Your task to perform on an android device: Is it going to rain today? Image 0: 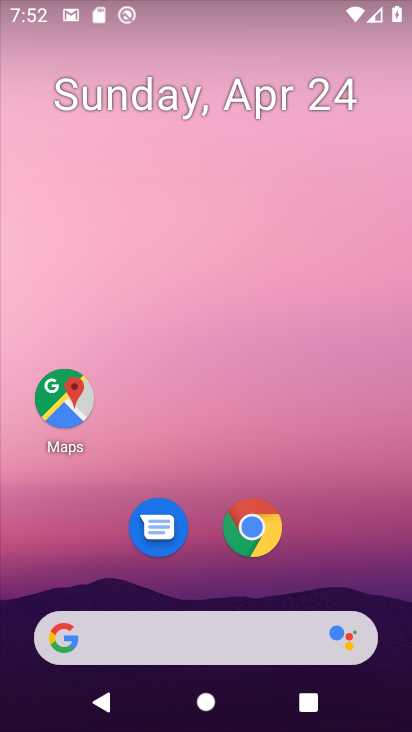
Step 0: click (251, 531)
Your task to perform on an android device: Is it going to rain today? Image 1: 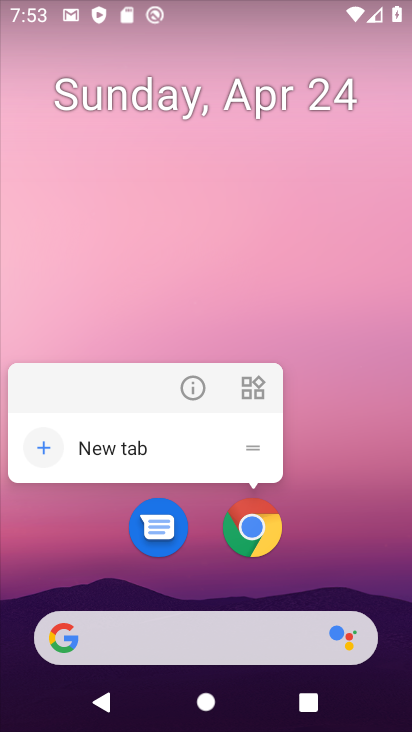
Step 1: click (199, 385)
Your task to perform on an android device: Is it going to rain today? Image 2: 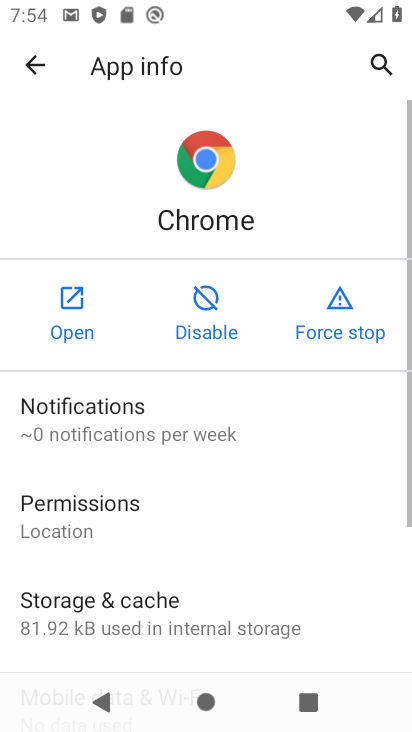
Step 2: click (84, 328)
Your task to perform on an android device: Is it going to rain today? Image 3: 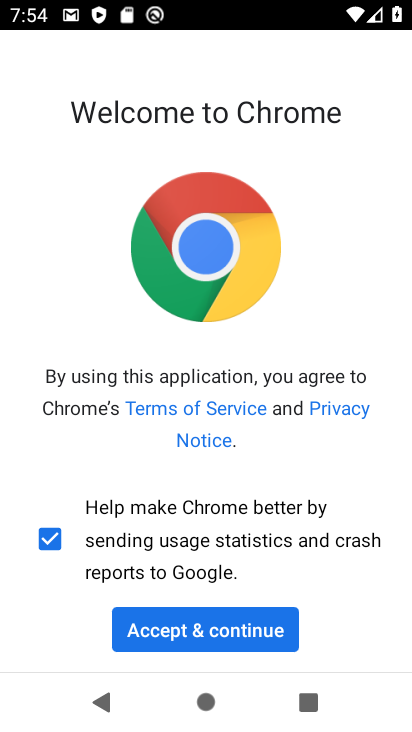
Step 3: click (208, 635)
Your task to perform on an android device: Is it going to rain today? Image 4: 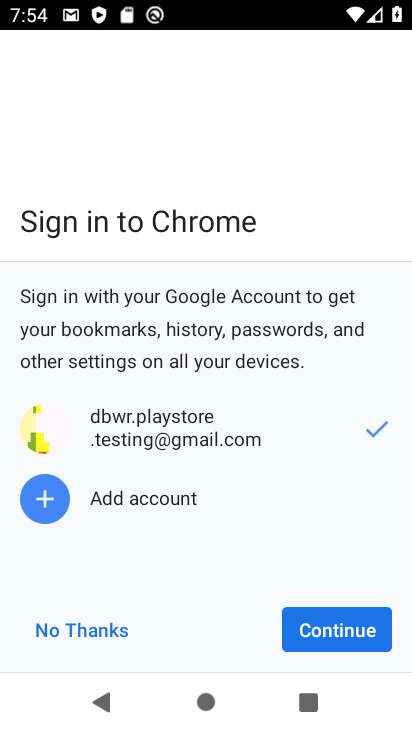
Step 4: click (350, 634)
Your task to perform on an android device: Is it going to rain today? Image 5: 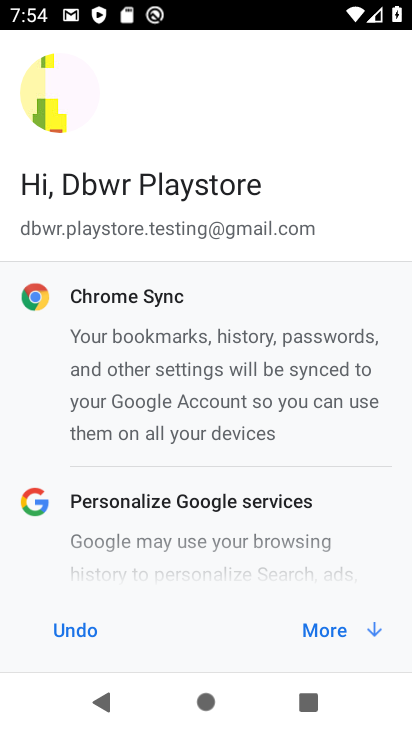
Step 5: click (351, 630)
Your task to perform on an android device: Is it going to rain today? Image 6: 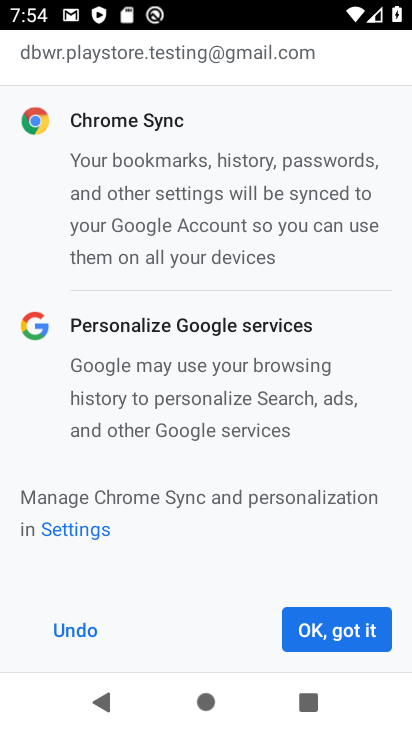
Step 6: click (343, 629)
Your task to perform on an android device: Is it going to rain today? Image 7: 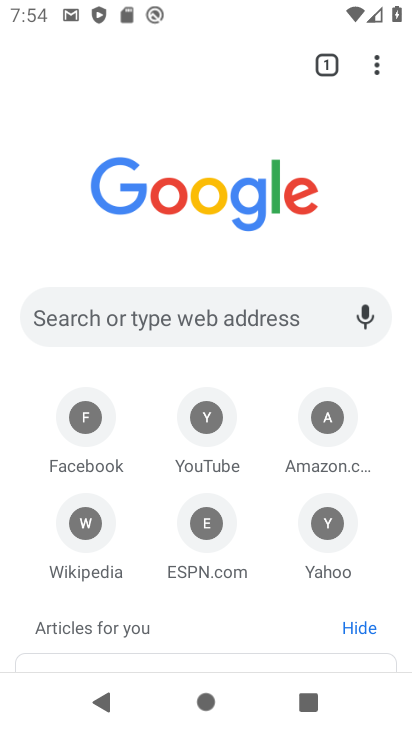
Step 7: click (145, 324)
Your task to perform on an android device: Is it going to rain today? Image 8: 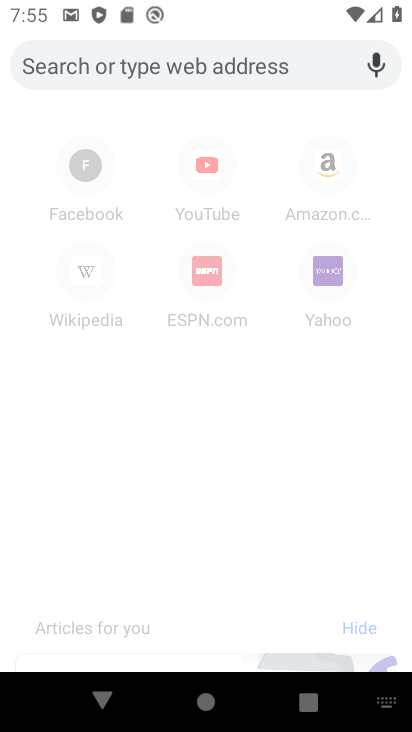
Step 8: type "is it going to rain today?"
Your task to perform on an android device: Is it going to rain today? Image 9: 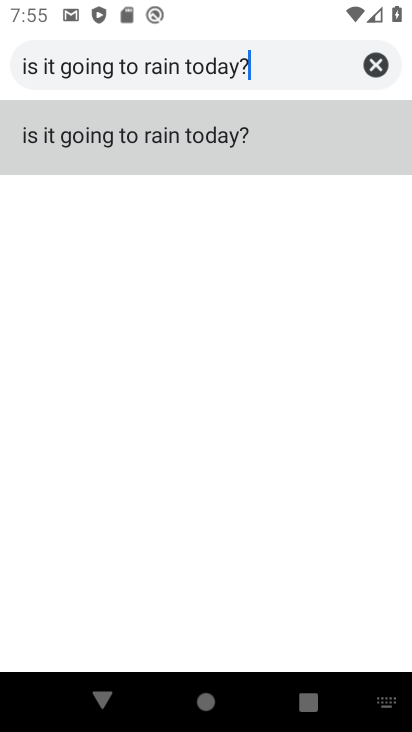
Step 9: click (163, 149)
Your task to perform on an android device: Is it going to rain today? Image 10: 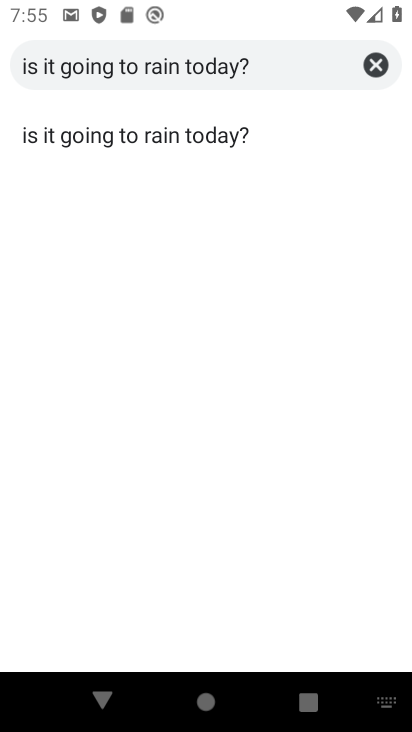
Step 10: click (181, 134)
Your task to perform on an android device: Is it going to rain today? Image 11: 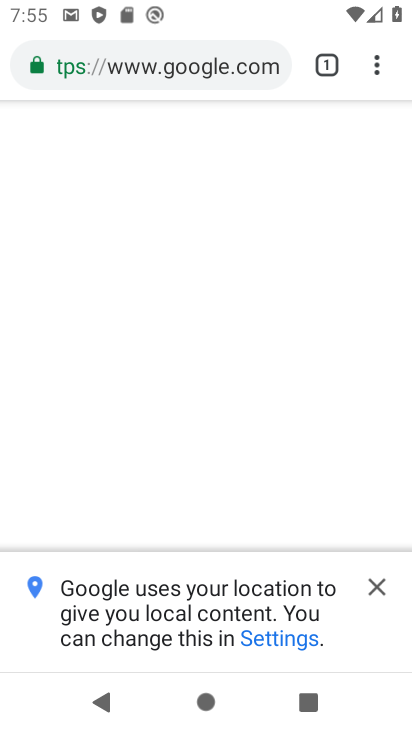
Step 11: task complete